Your task to perform on an android device: turn on wifi Image 0: 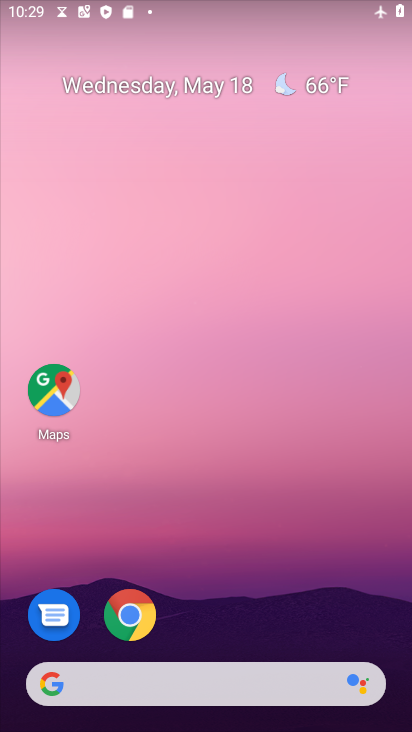
Step 0: drag from (201, 549) to (148, 33)
Your task to perform on an android device: turn on wifi Image 1: 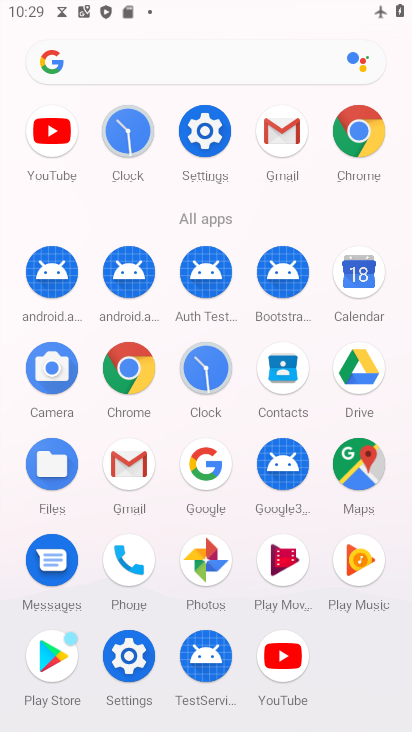
Step 1: click (129, 651)
Your task to perform on an android device: turn on wifi Image 2: 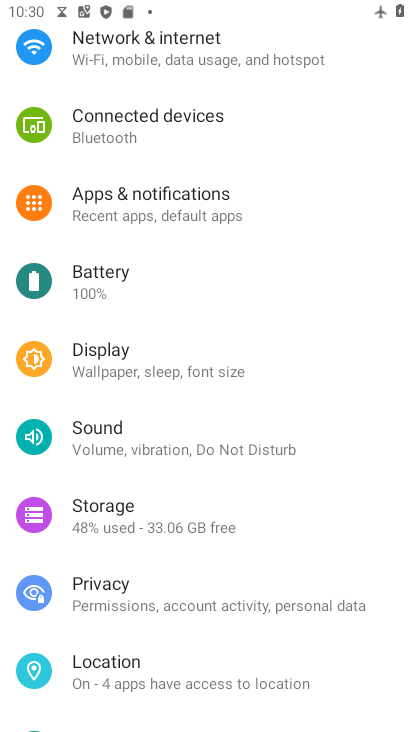
Step 2: drag from (232, 147) to (204, 596)
Your task to perform on an android device: turn on wifi Image 3: 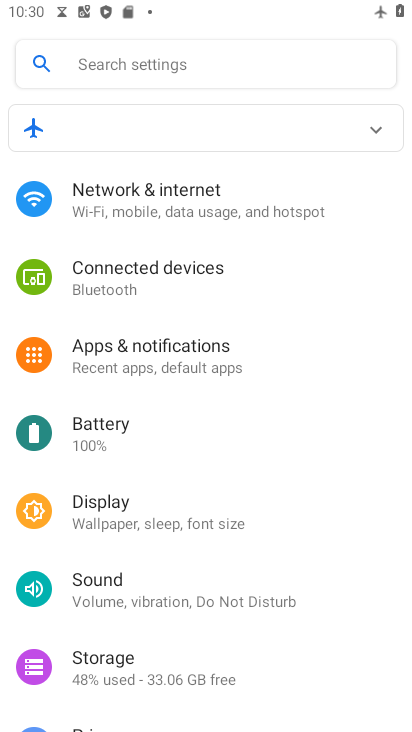
Step 3: click (218, 200)
Your task to perform on an android device: turn on wifi Image 4: 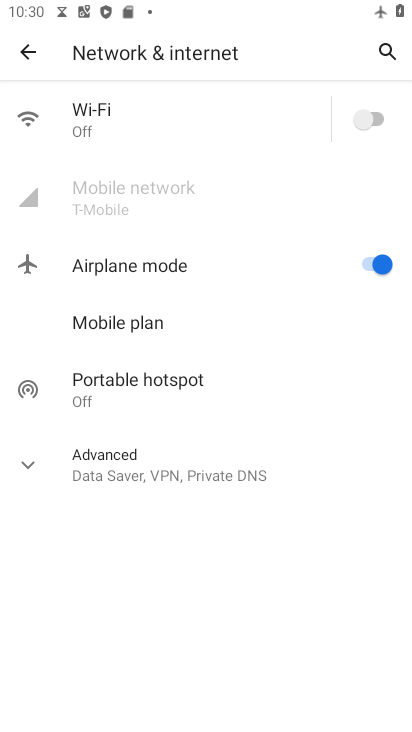
Step 4: click (378, 111)
Your task to perform on an android device: turn on wifi Image 5: 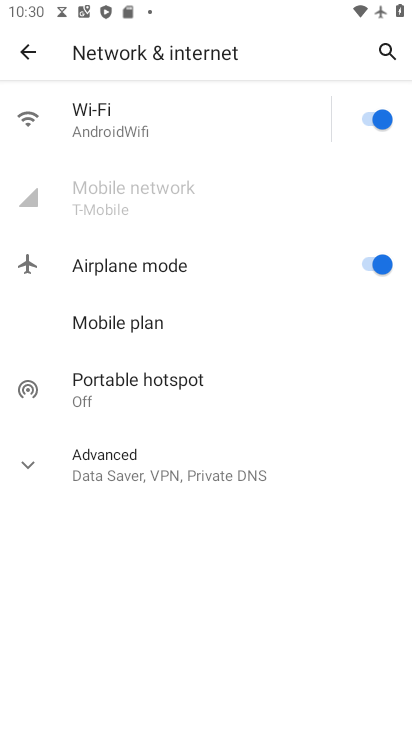
Step 5: task complete